Your task to perform on an android device: Show me popular games on the Play Store Image 0: 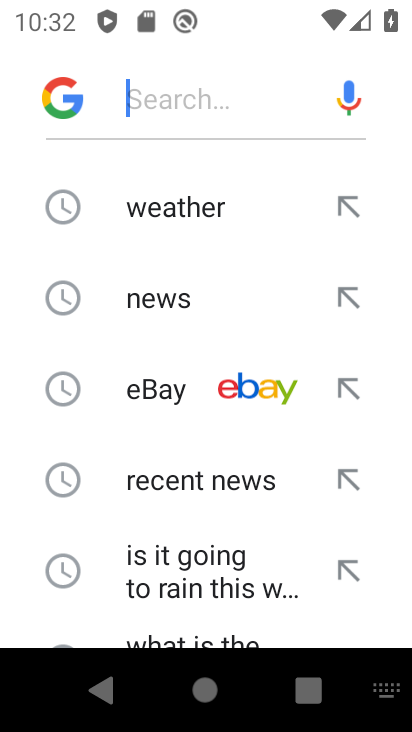
Step 0: press home button
Your task to perform on an android device: Show me popular games on the Play Store Image 1: 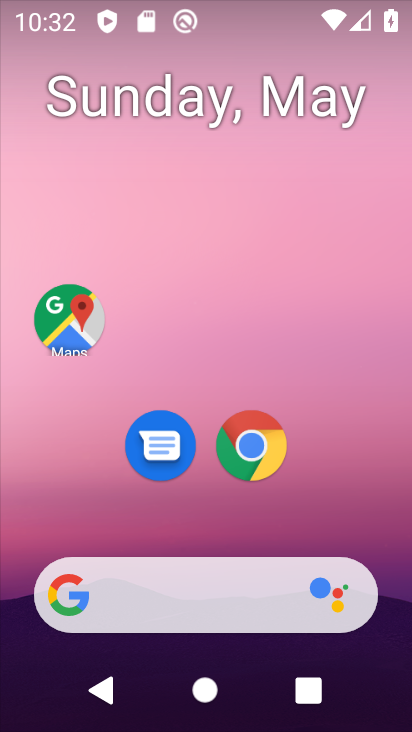
Step 1: drag from (334, 484) to (235, 28)
Your task to perform on an android device: Show me popular games on the Play Store Image 2: 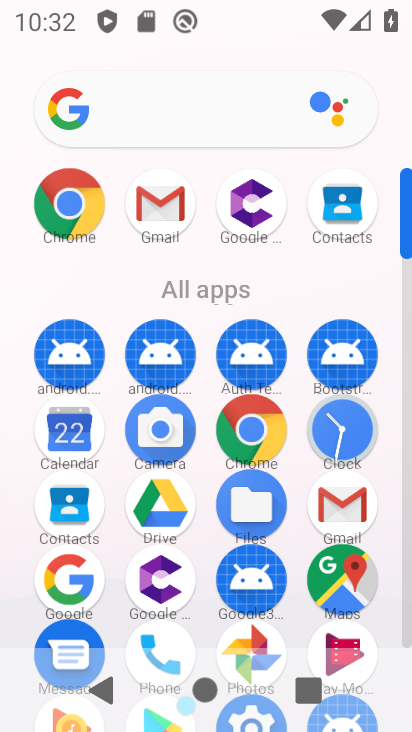
Step 2: drag from (208, 590) to (197, 248)
Your task to perform on an android device: Show me popular games on the Play Store Image 3: 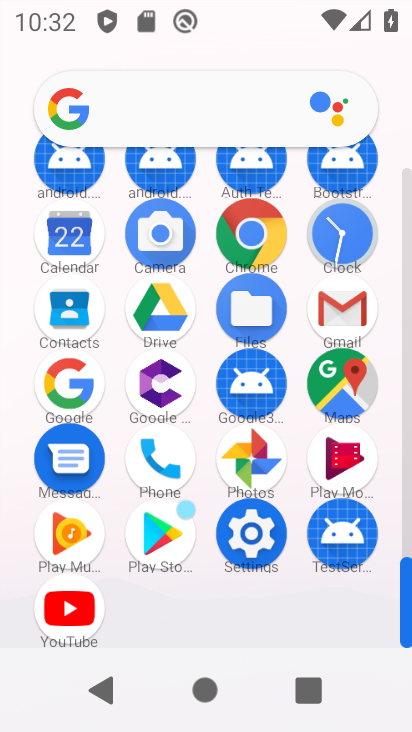
Step 3: click (166, 553)
Your task to perform on an android device: Show me popular games on the Play Store Image 4: 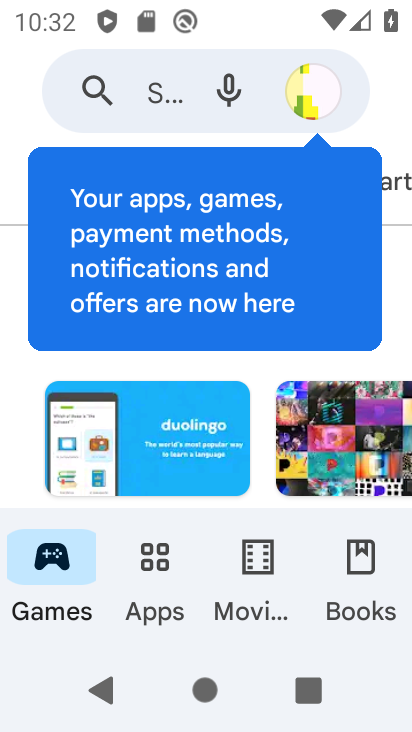
Step 4: click (13, 128)
Your task to perform on an android device: Show me popular games on the Play Store Image 5: 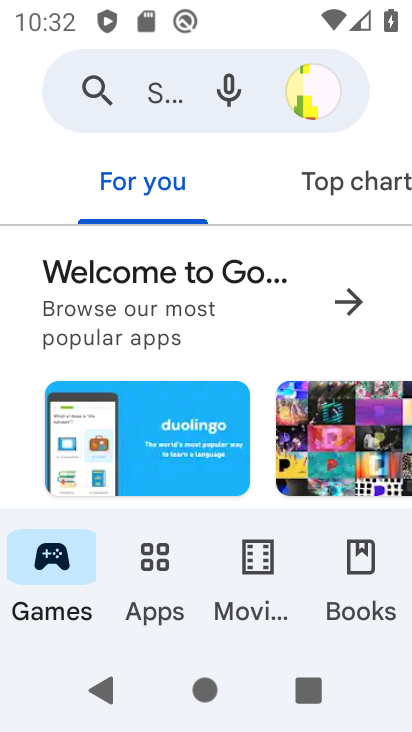
Step 5: click (345, 181)
Your task to perform on an android device: Show me popular games on the Play Store Image 6: 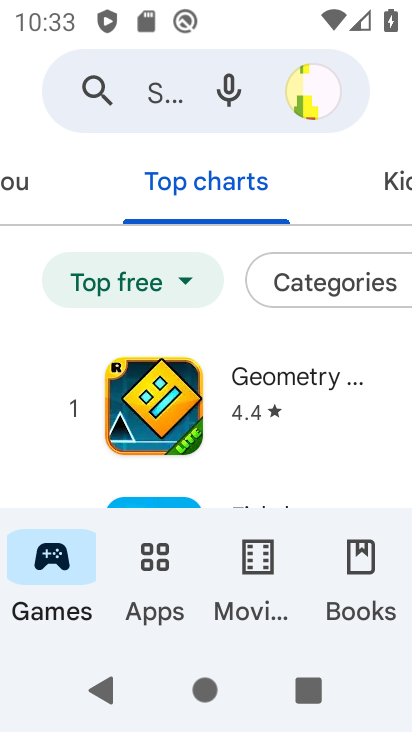
Step 6: task complete